Your task to perform on an android device: turn on showing notifications on the lock screen Image 0: 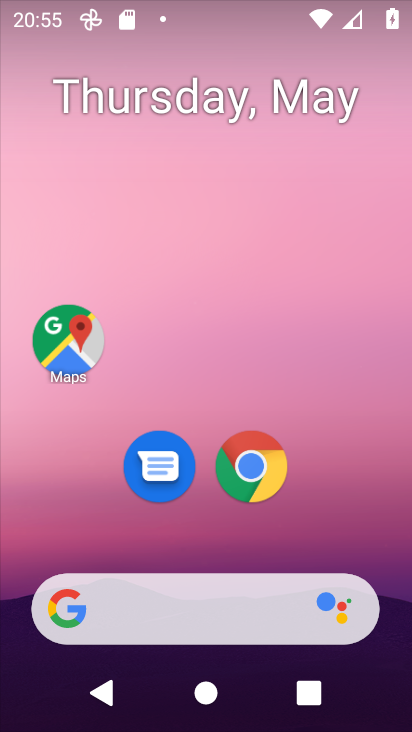
Step 0: drag from (363, 522) to (316, 153)
Your task to perform on an android device: turn on showing notifications on the lock screen Image 1: 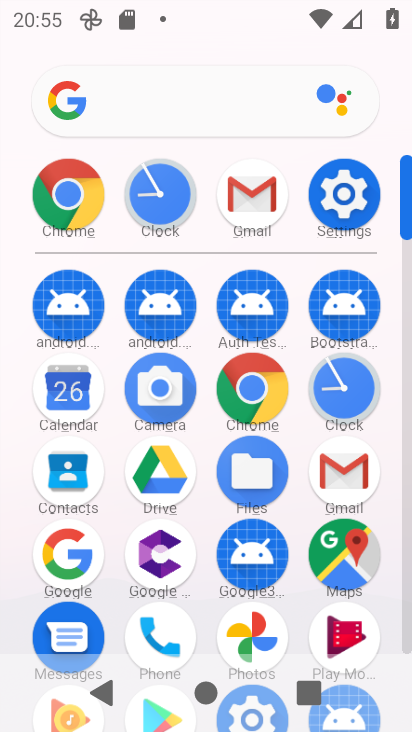
Step 1: click (354, 180)
Your task to perform on an android device: turn on showing notifications on the lock screen Image 2: 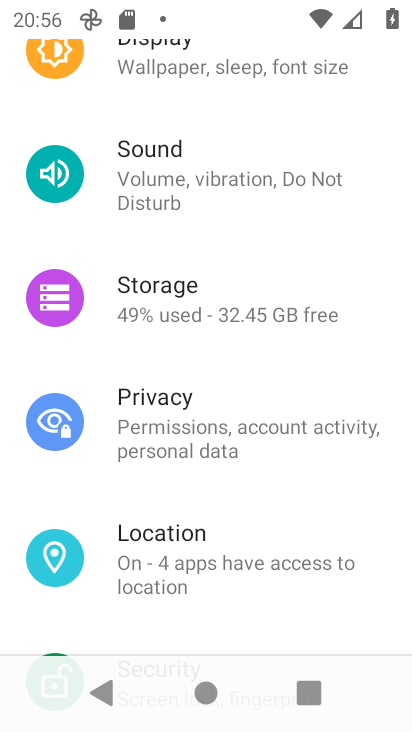
Step 2: task complete